Your task to perform on an android device: open app "Pinterest" (install if not already installed) and go to login screen Image 0: 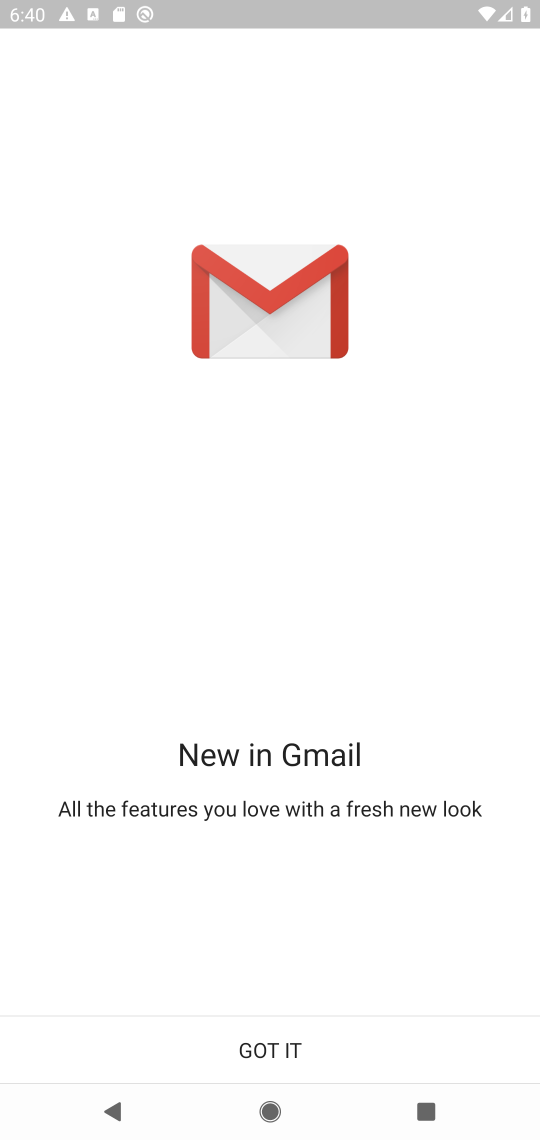
Step 0: press home button
Your task to perform on an android device: open app "Pinterest" (install if not already installed) and go to login screen Image 1: 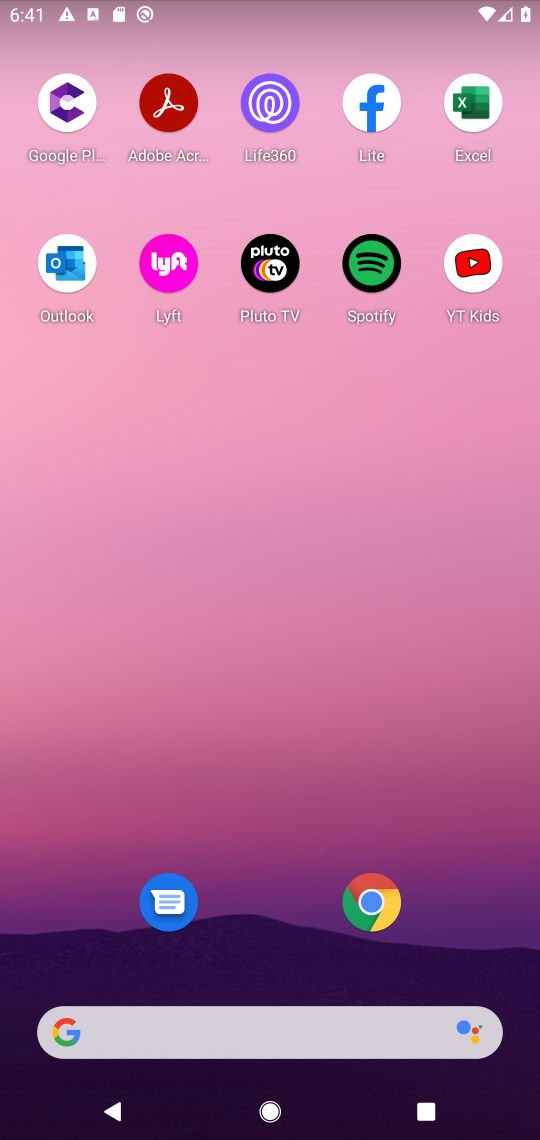
Step 1: drag from (196, 384) to (36, 353)
Your task to perform on an android device: open app "Pinterest" (install if not already installed) and go to login screen Image 2: 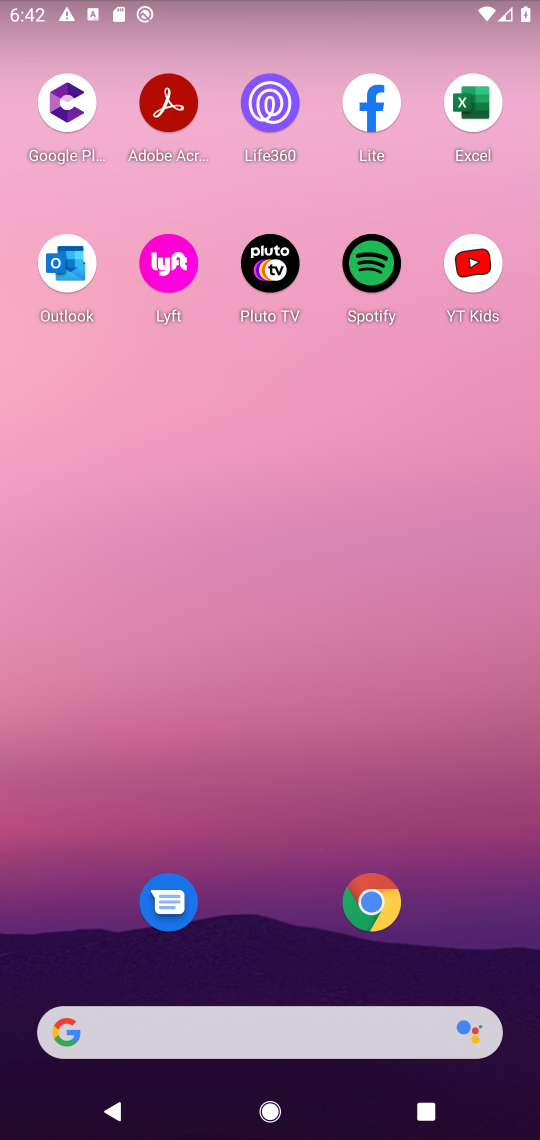
Step 2: drag from (277, 874) to (191, 45)
Your task to perform on an android device: open app "Pinterest" (install if not already installed) and go to login screen Image 3: 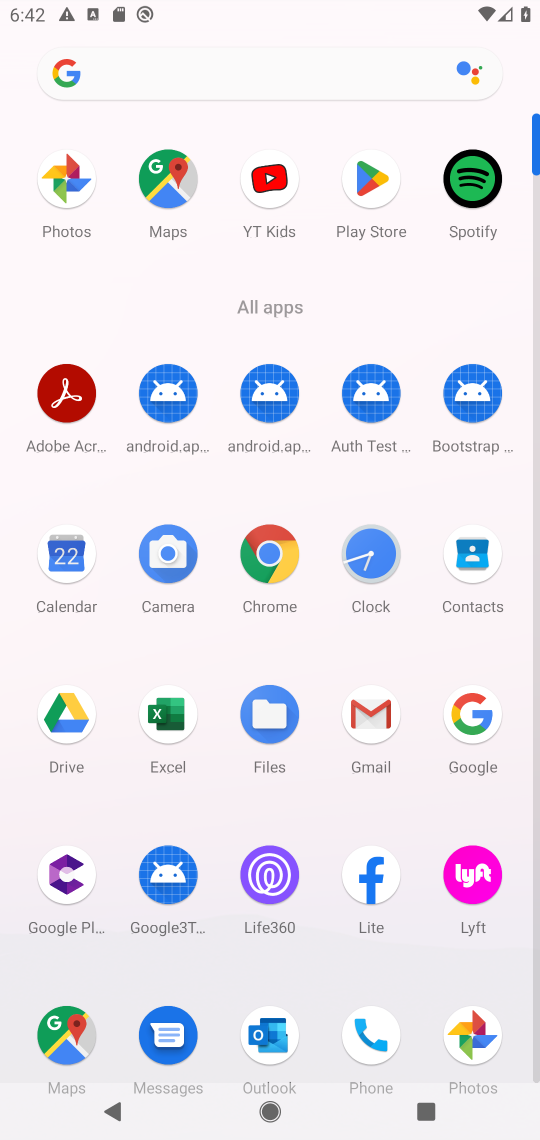
Step 3: click (368, 187)
Your task to perform on an android device: open app "Pinterest" (install if not already installed) and go to login screen Image 4: 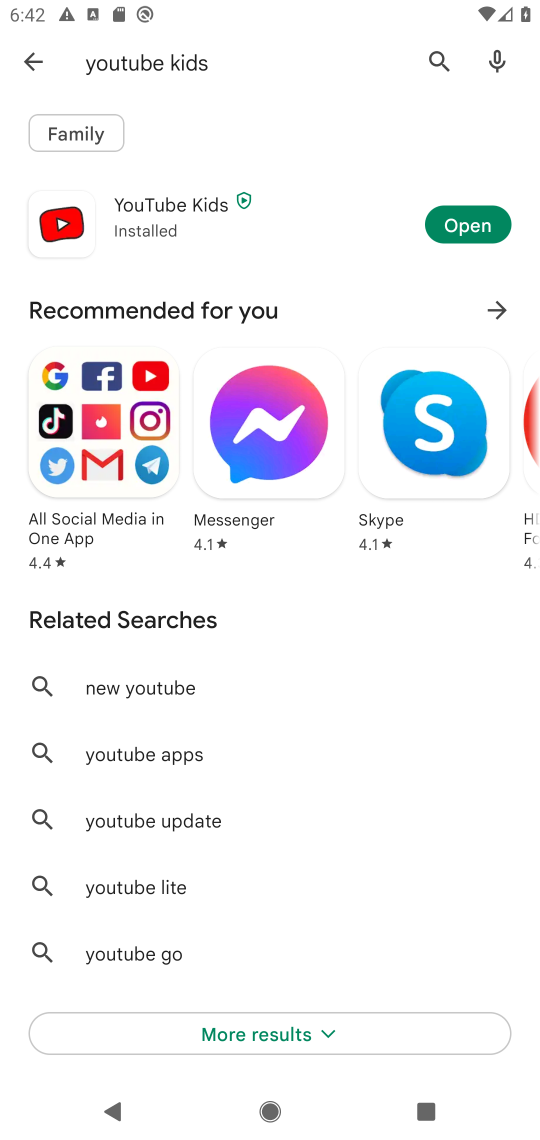
Step 4: click (34, 61)
Your task to perform on an android device: open app "Pinterest" (install if not already installed) and go to login screen Image 5: 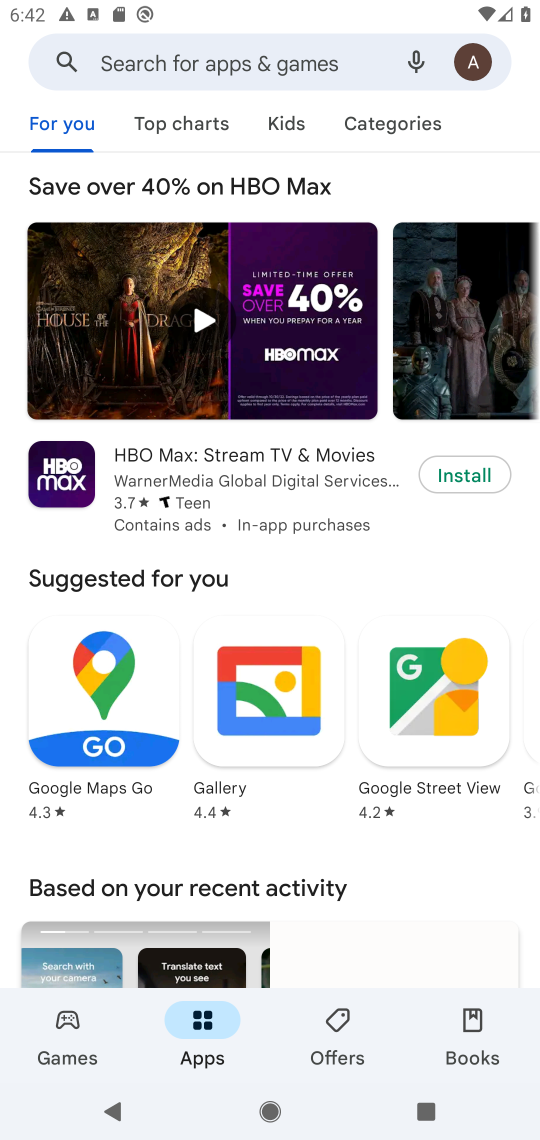
Step 5: click (187, 68)
Your task to perform on an android device: open app "Pinterest" (install if not already installed) and go to login screen Image 6: 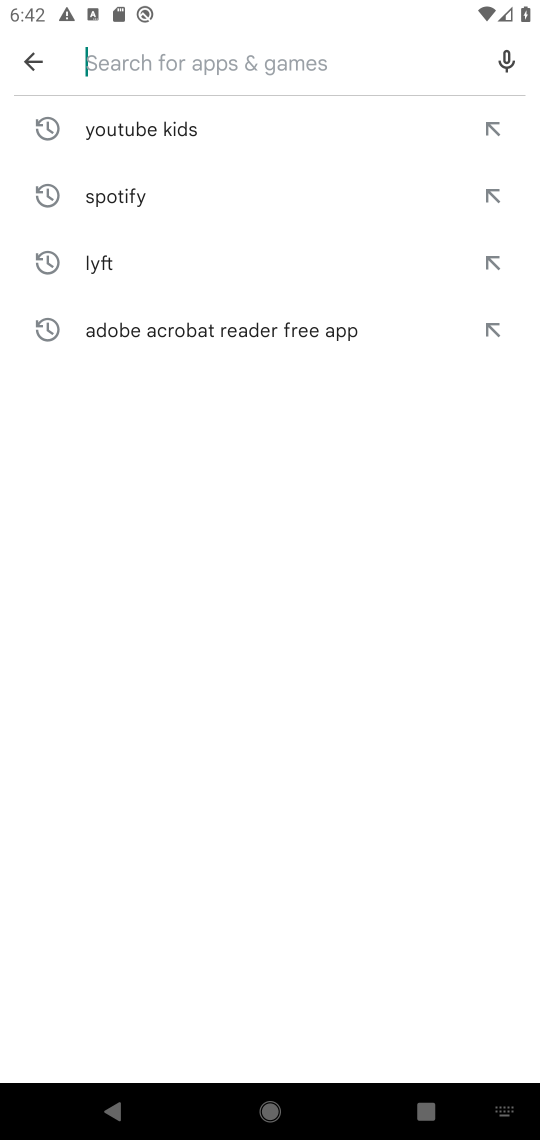
Step 6: type "Pinterest"
Your task to perform on an android device: open app "Pinterest" (install if not already installed) and go to login screen Image 7: 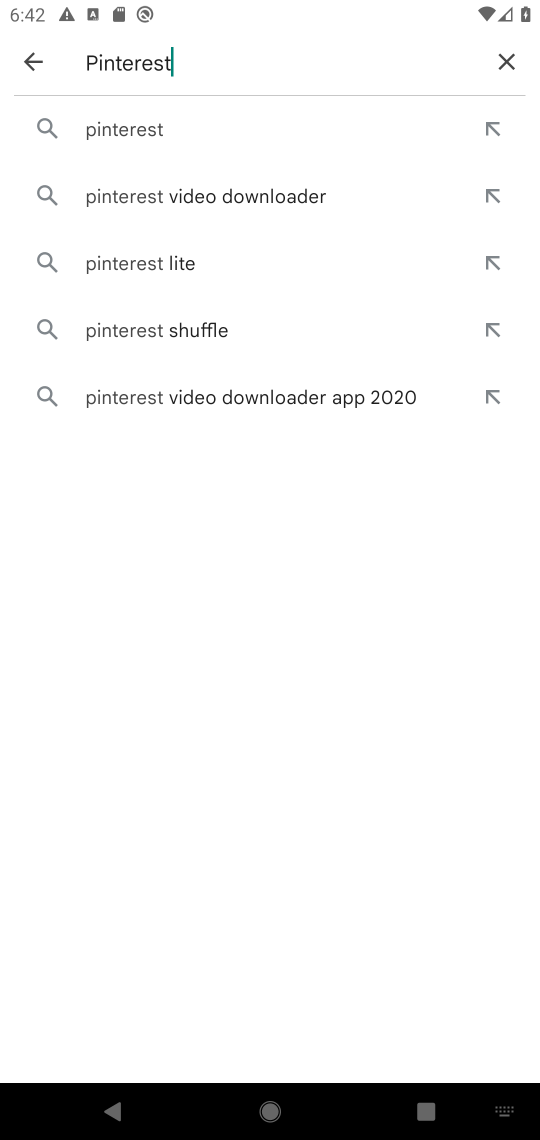
Step 7: click (106, 137)
Your task to perform on an android device: open app "Pinterest" (install if not already installed) and go to login screen Image 8: 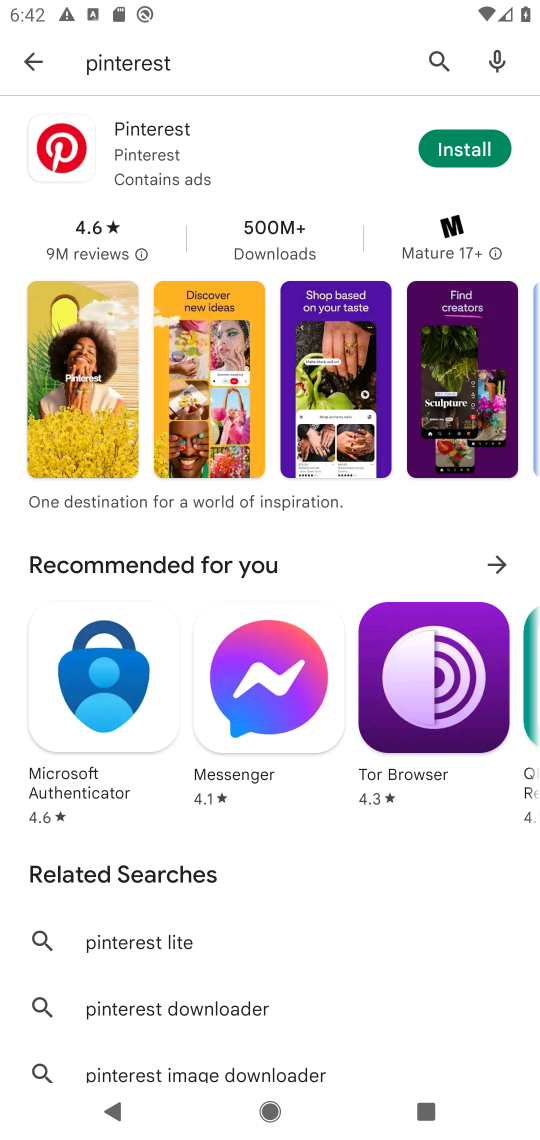
Step 8: click (467, 140)
Your task to perform on an android device: open app "Pinterest" (install if not already installed) and go to login screen Image 9: 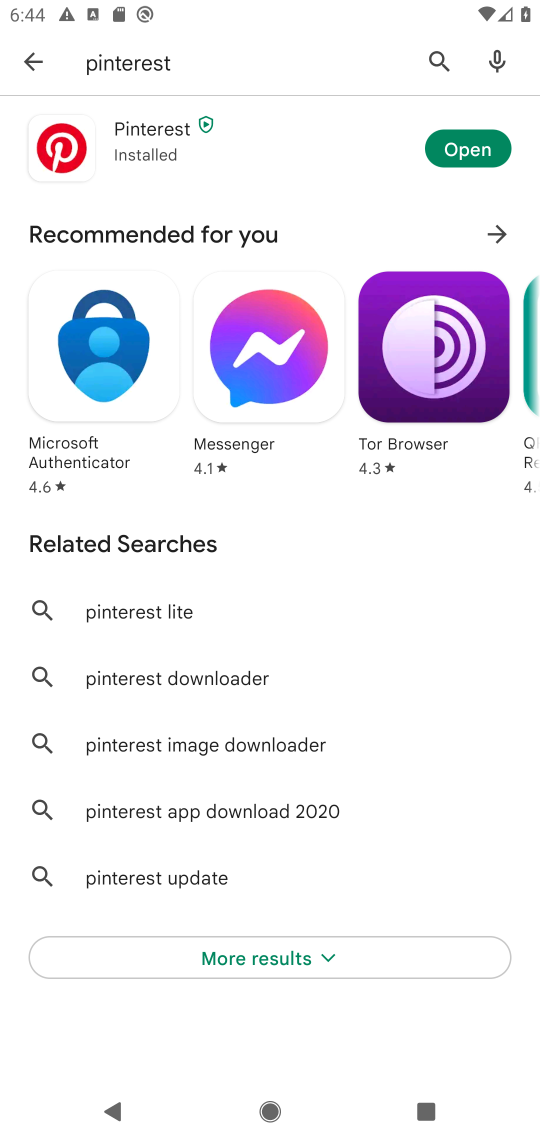
Step 9: click (467, 140)
Your task to perform on an android device: open app "Pinterest" (install if not already installed) and go to login screen Image 10: 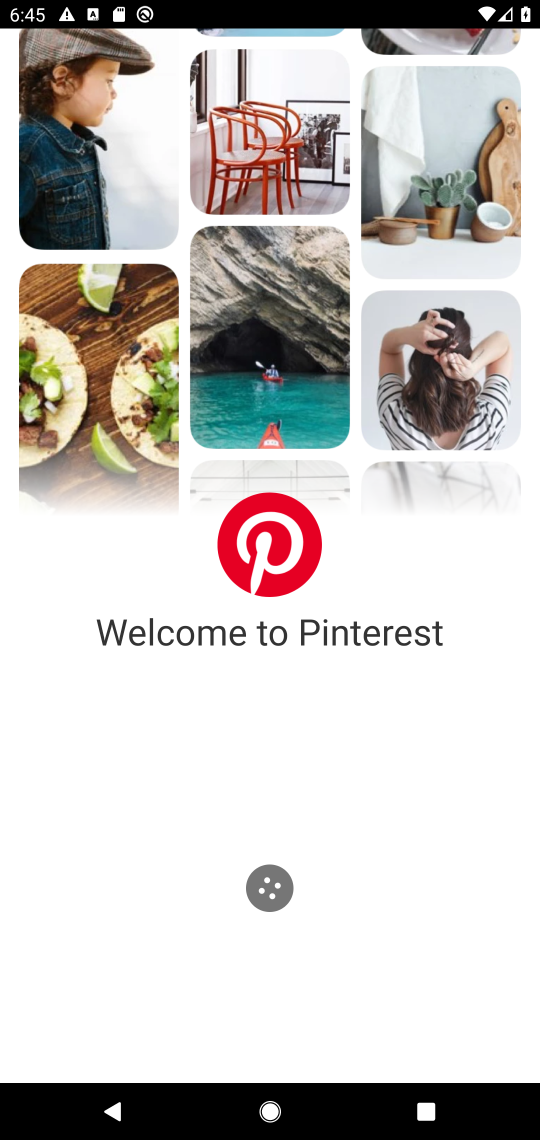
Step 10: task complete